Your task to perform on an android device: Go to eBay Image 0: 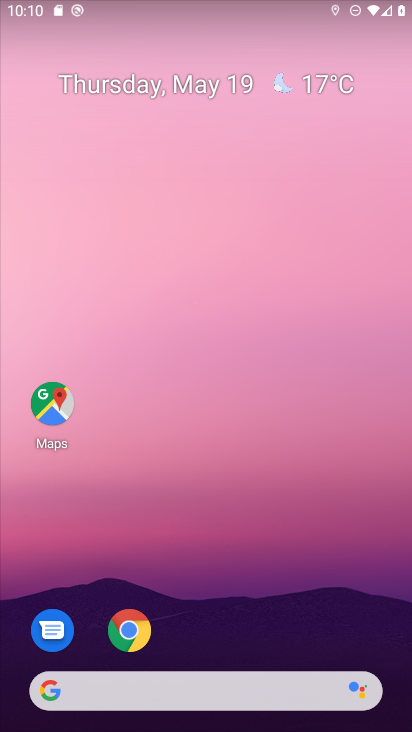
Step 0: click (138, 629)
Your task to perform on an android device: Go to eBay Image 1: 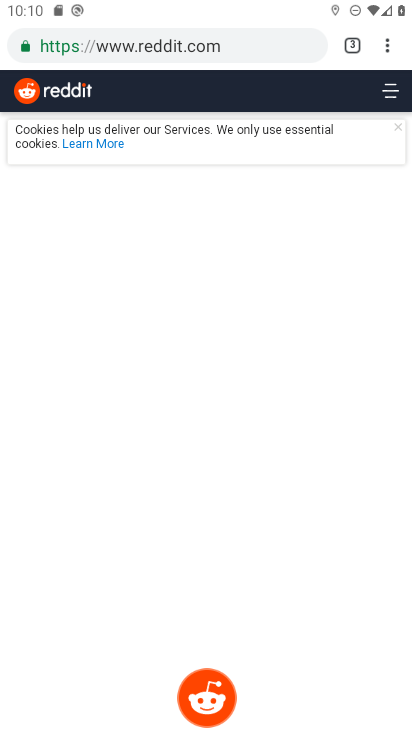
Step 1: click (384, 43)
Your task to perform on an android device: Go to eBay Image 2: 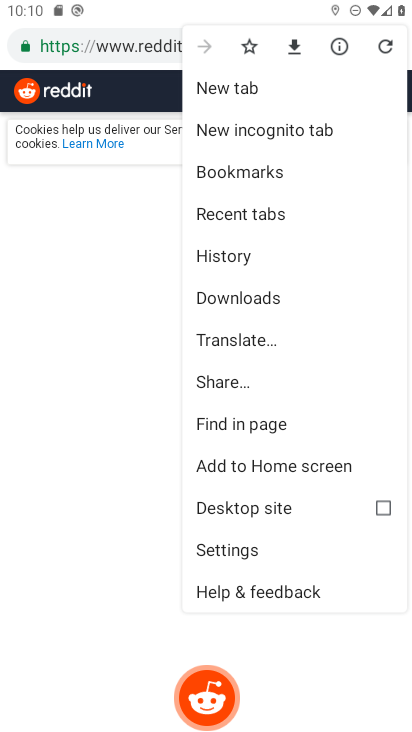
Step 2: click (215, 93)
Your task to perform on an android device: Go to eBay Image 3: 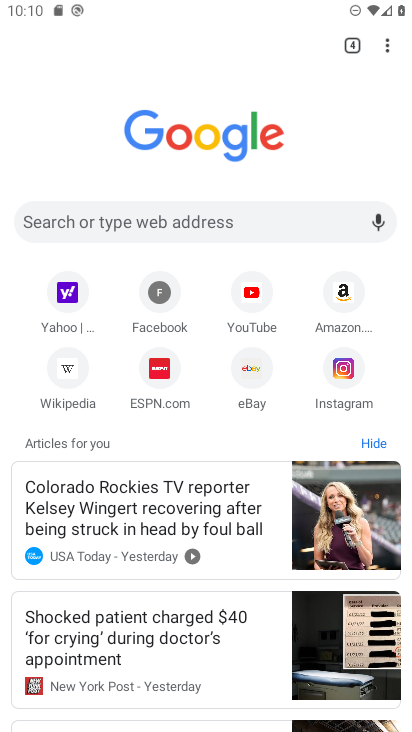
Step 3: click (266, 372)
Your task to perform on an android device: Go to eBay Image 4: 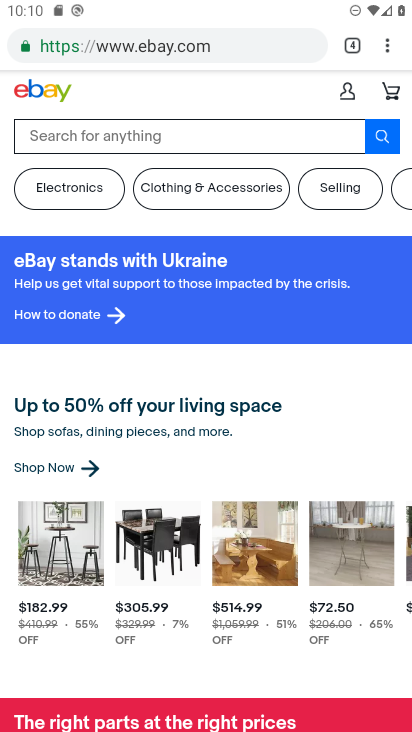
Step 4: task complete